Your task to perform on an android device: Go to privacy settings Image 0: 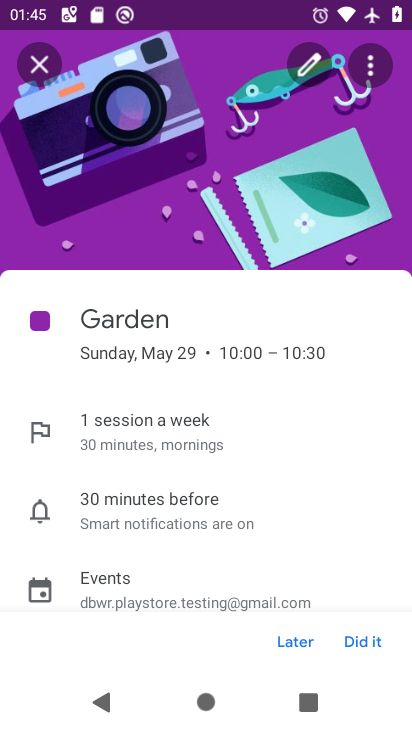
Step 0: press home button
Your task to perform on an android device: Go to privacy settings Image 1: 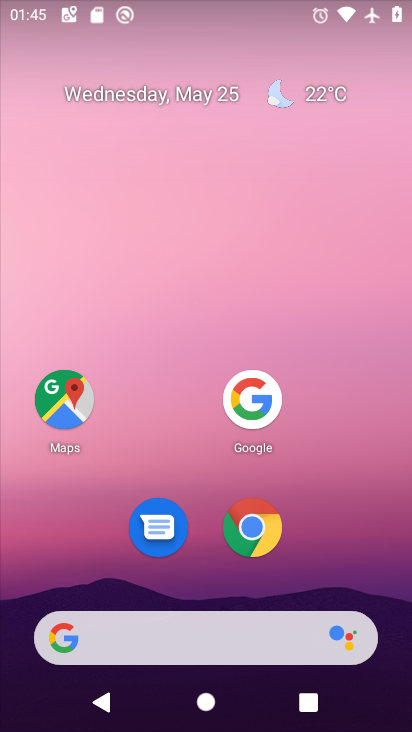
Step 1: drag from (127, 638) to (309, 95)
Your task to perform on an android device: Go to privacy settings Image 2: 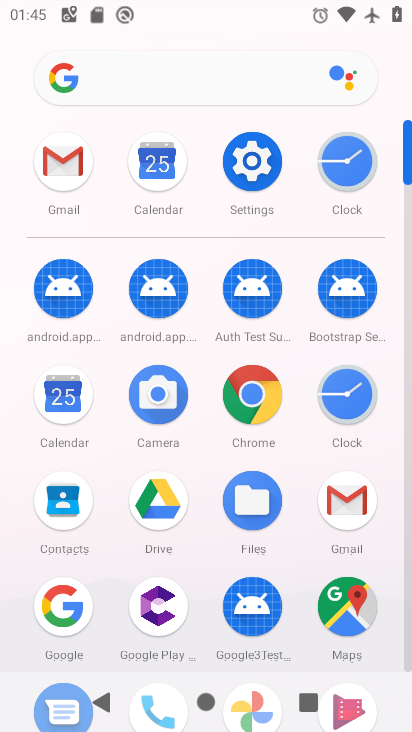
Step 2: click (259, 157)
Your task to perform on an android device: Go to privacy settings Image 3: 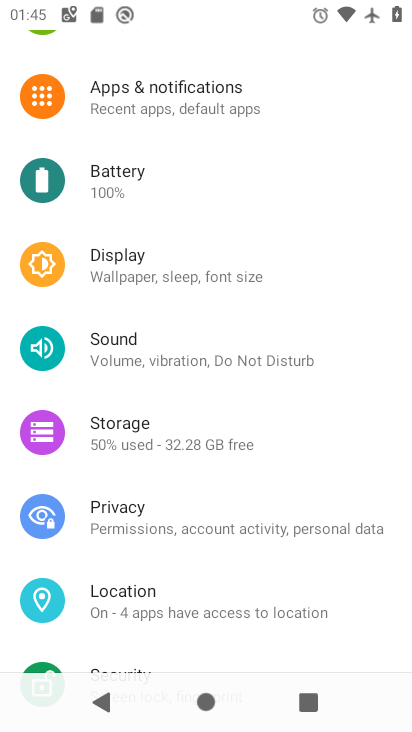
Step 3: click (167, 516)
Your task to perform on an android device: Go to privacy settings Image 4: 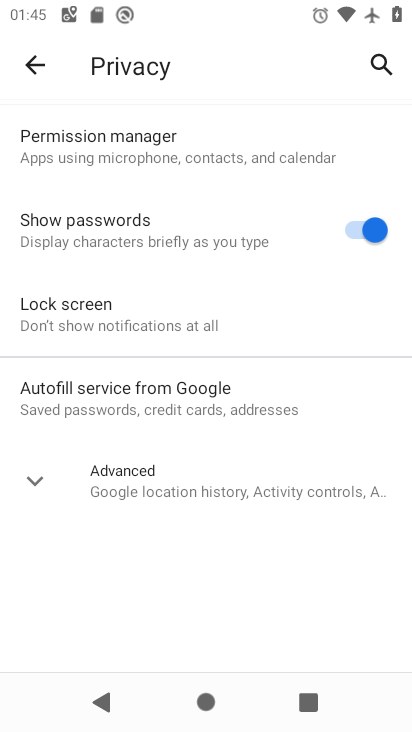
Step 4: task complete